Your task to perform on an android device: What is the news today? Image 0: 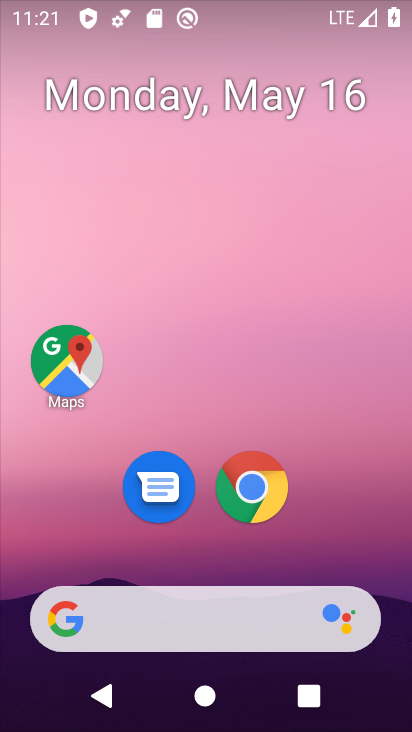
Step 0: click (196, 609)
Your task to perform on an android device: What is the news today? Image 1: 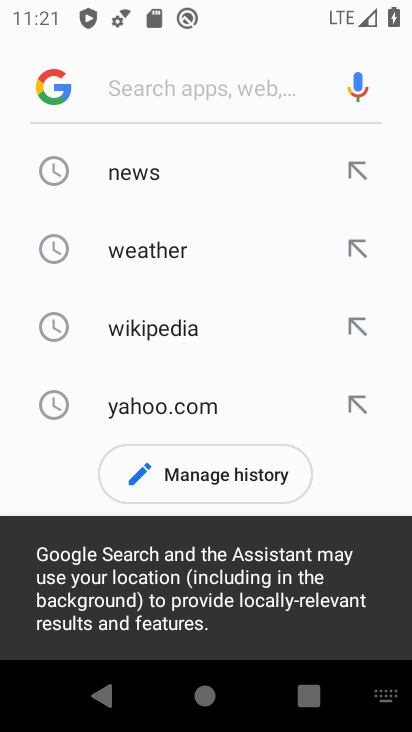
Step 1: click (171, 174)
Your task to perform on an android device: What is the news today? Image 2: 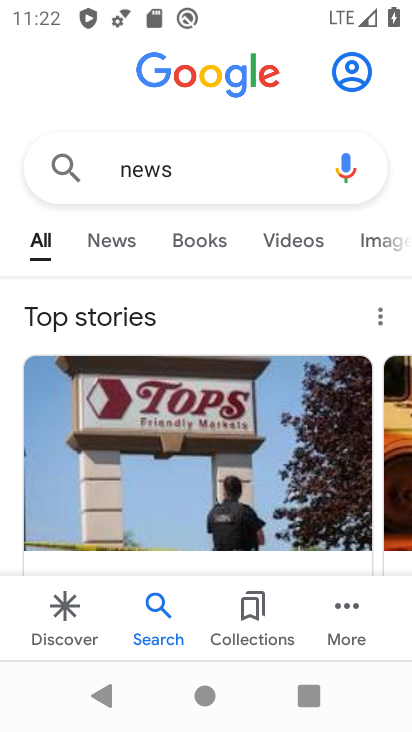
Step 2: task complete